Your task to perform on an android device: turn on notifications settings in the gmail app Image 0: 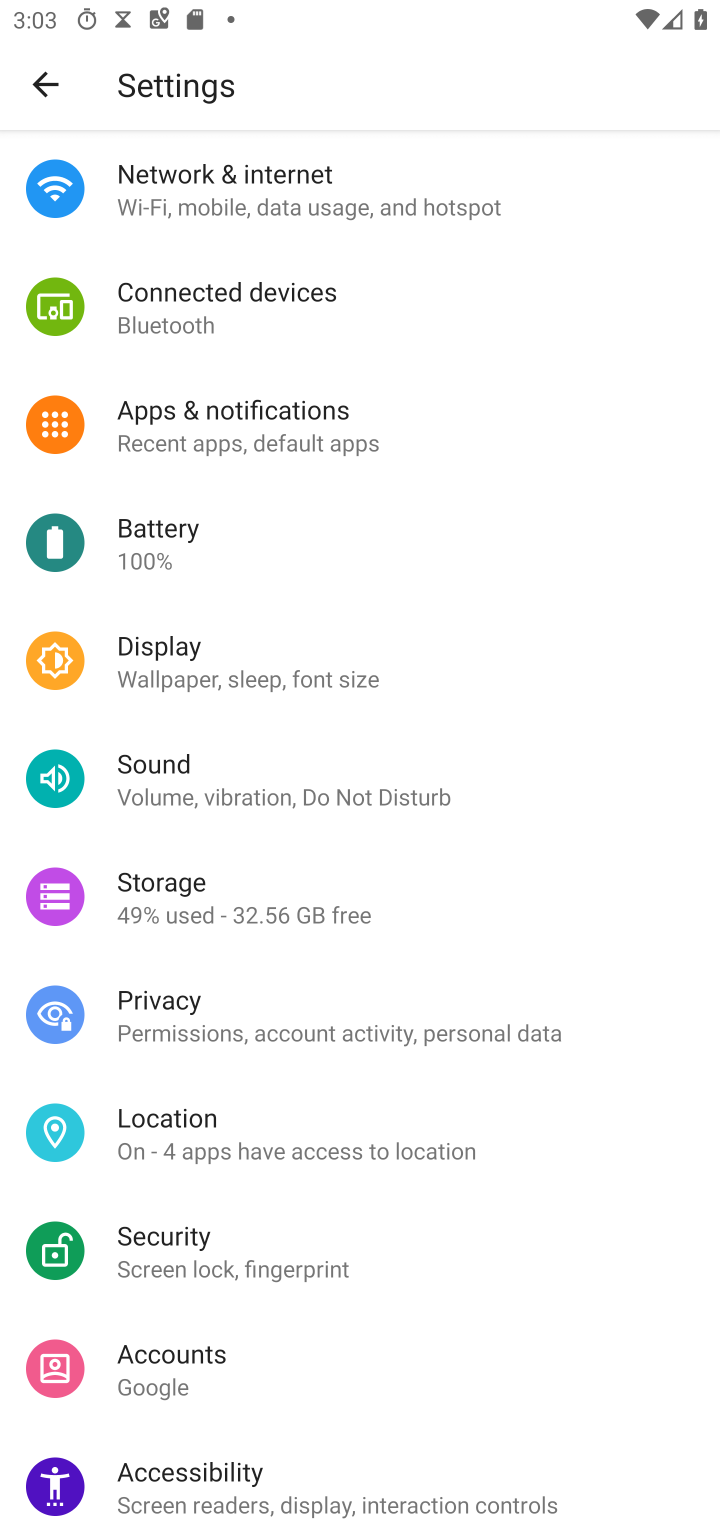
Step 0: press home button
Your task to perform on an android device: turn on notifications settings in the gmail app Image 1: 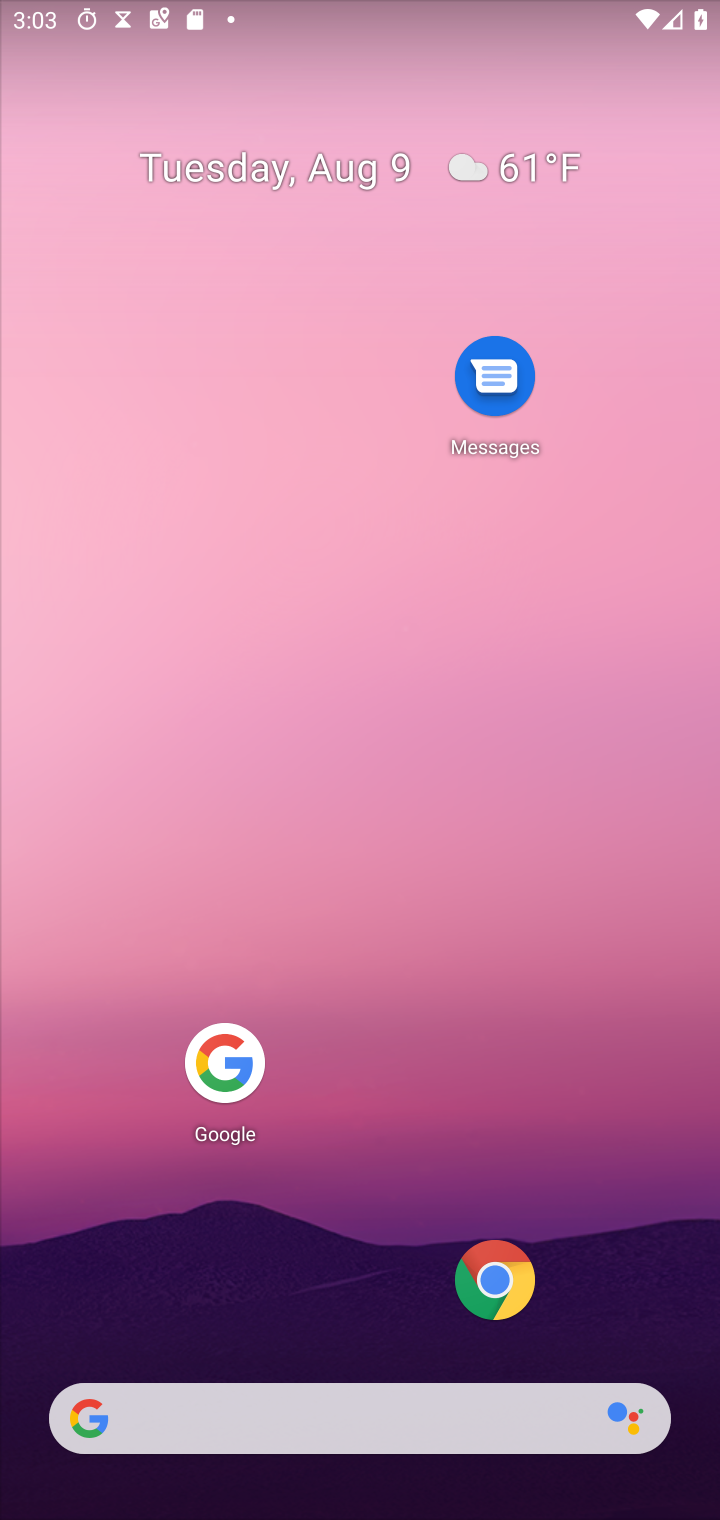
Step 1: drag from (306, 1282) to (452, 372)
Your task to perform on an android device: turn on notifications settings in the gmail app Image 2: 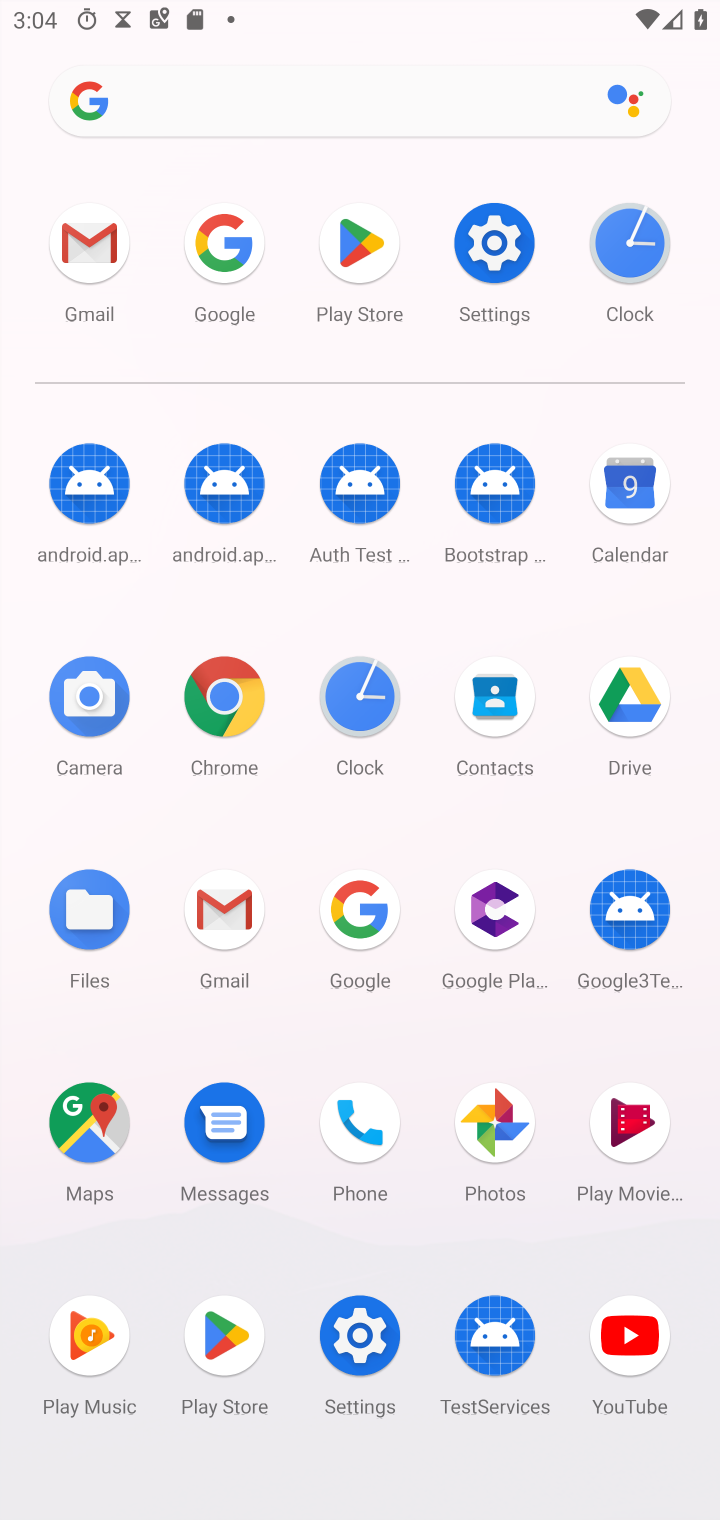
Step 2: click (91, 251)
Your task to perform on an android device: turn on notifications settings in the gmail app Image 3: 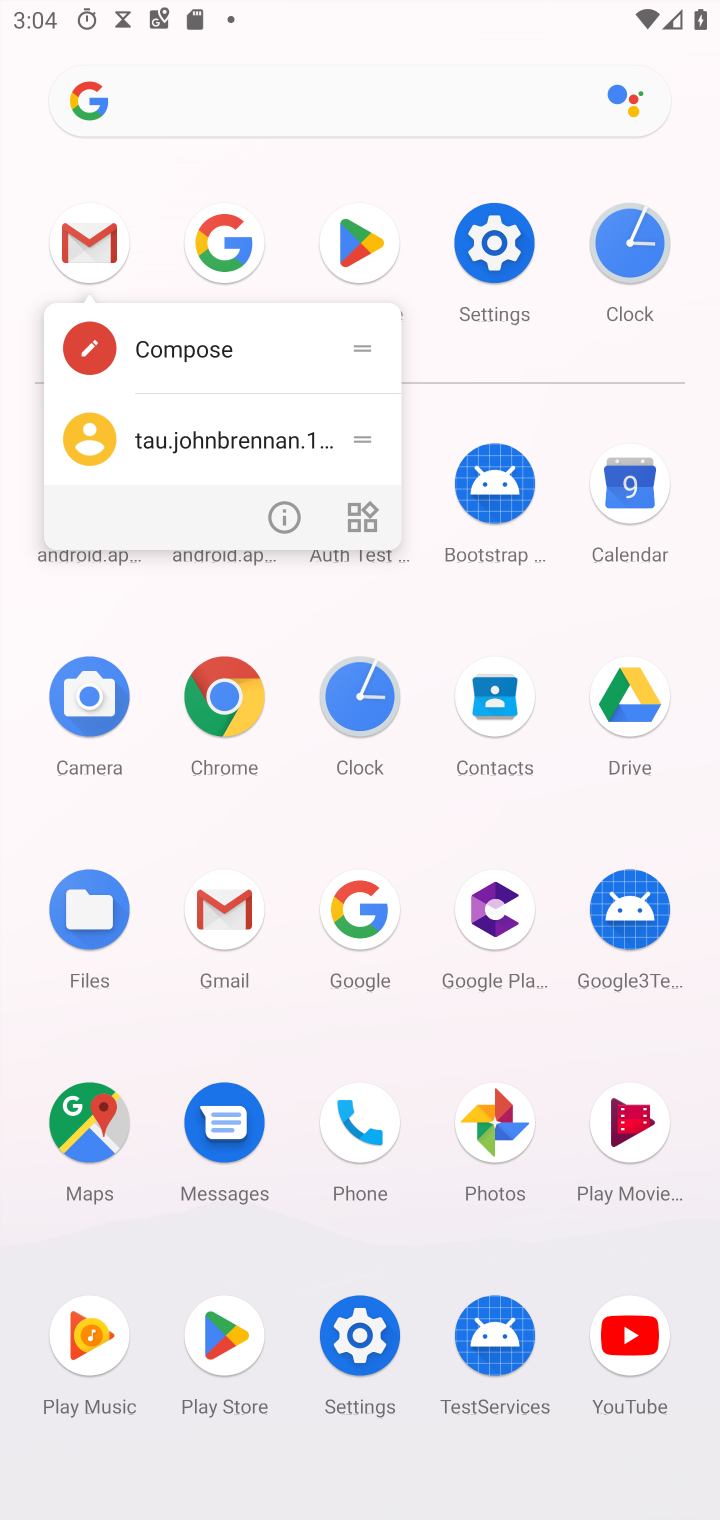
Step 3: click (85, 243)
Your task to perform on an android device: turn on notifications settings in the gmail app Image 4: 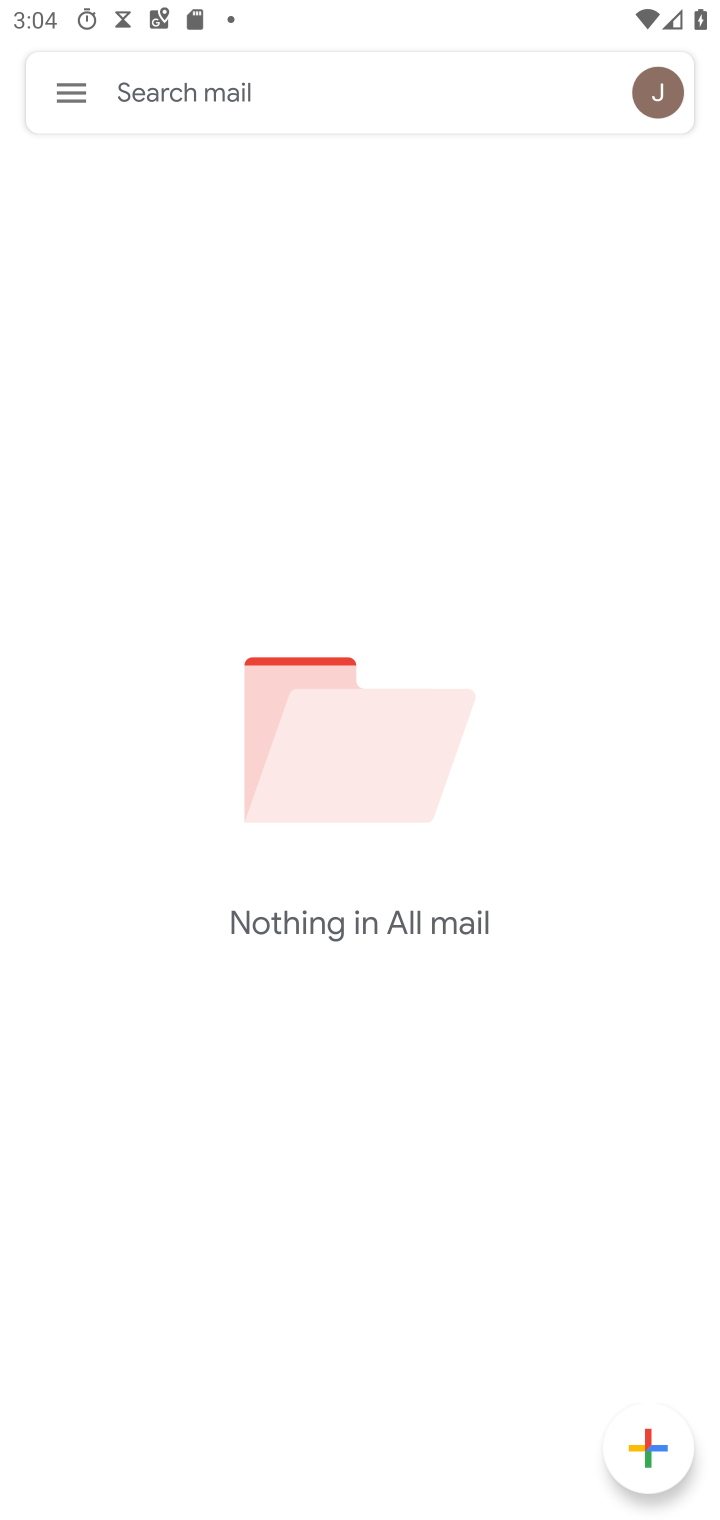
Step 4: click (65, 92)
Your task to perform on an android device: turn on notifications settings in the gmail app Image 5: 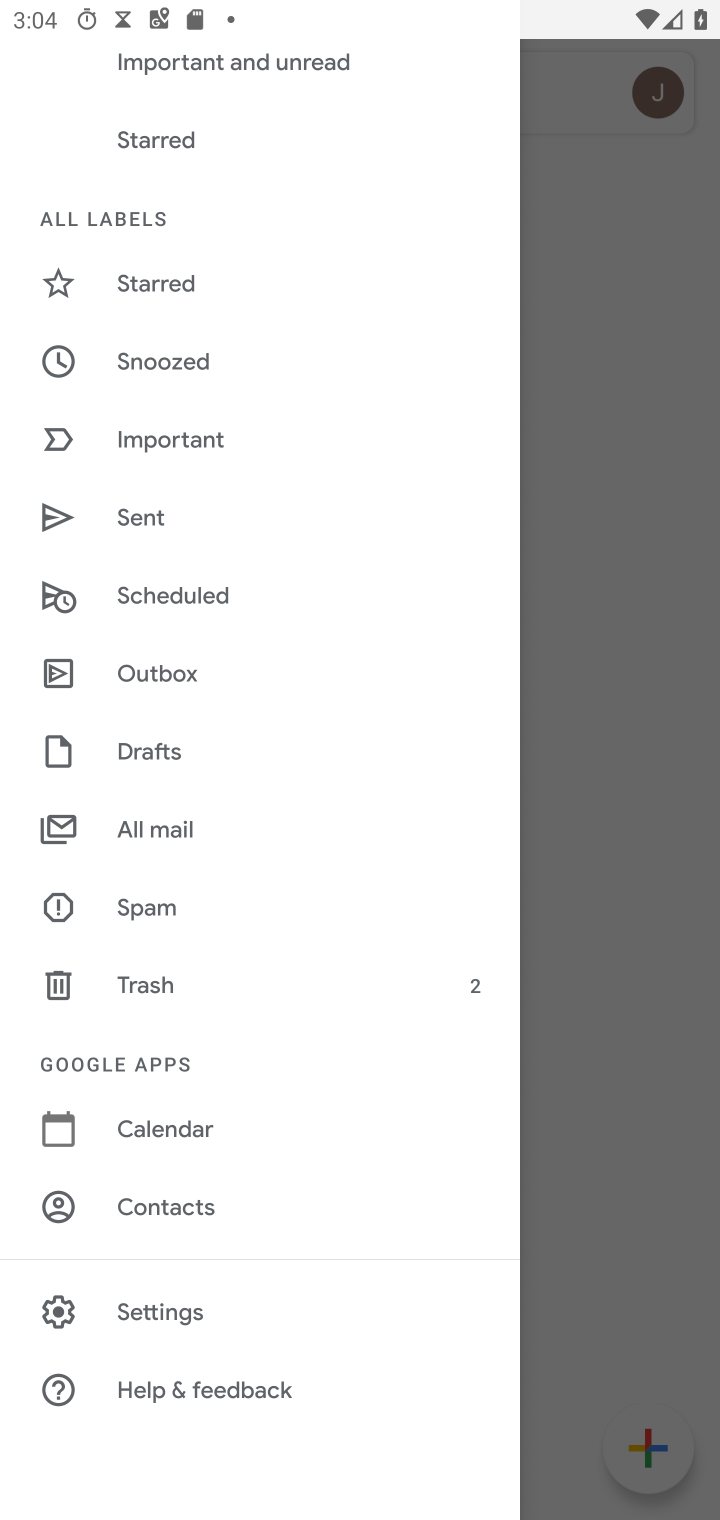
Step 5: click (149, 1311)
Your task to perform on an android device: turn on notifications settings in the gmail app Image 6: 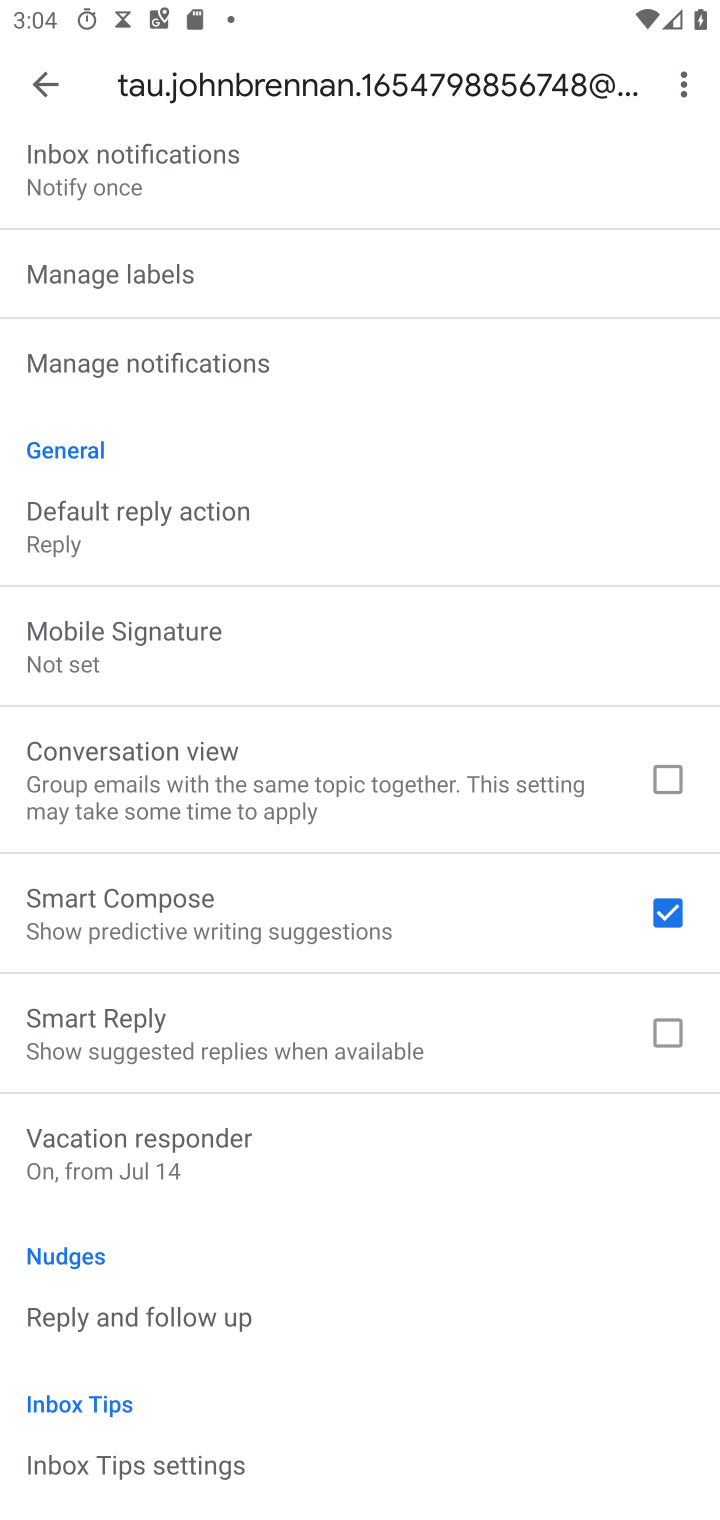
Step 6: drag from (408, 537) to (392, 1024)
Your task to perform on an android device: turn on notifications settings in the gmail app Image 7: 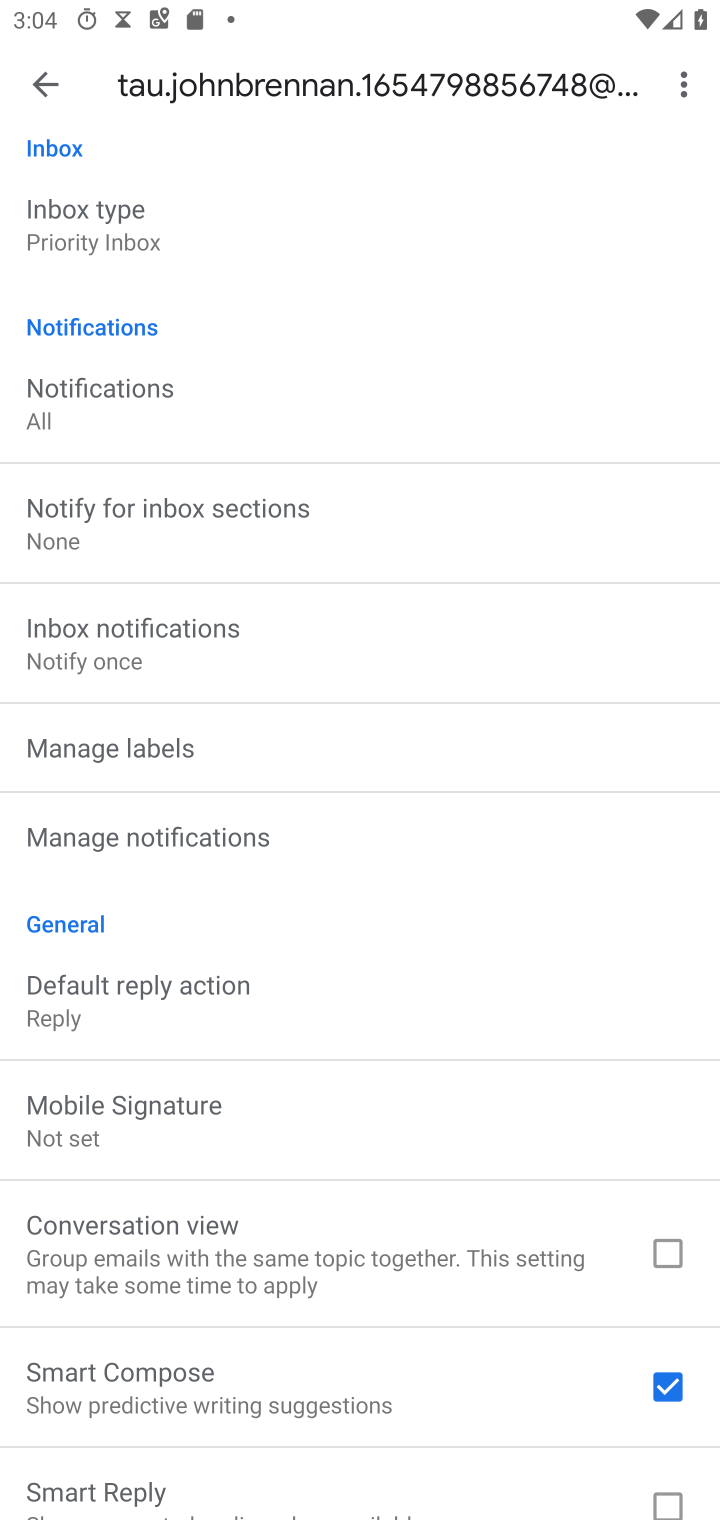
Step 7: click (110, 414)
Your task to perform on an android device: turn on notifications settings in the gmail app Image 8: 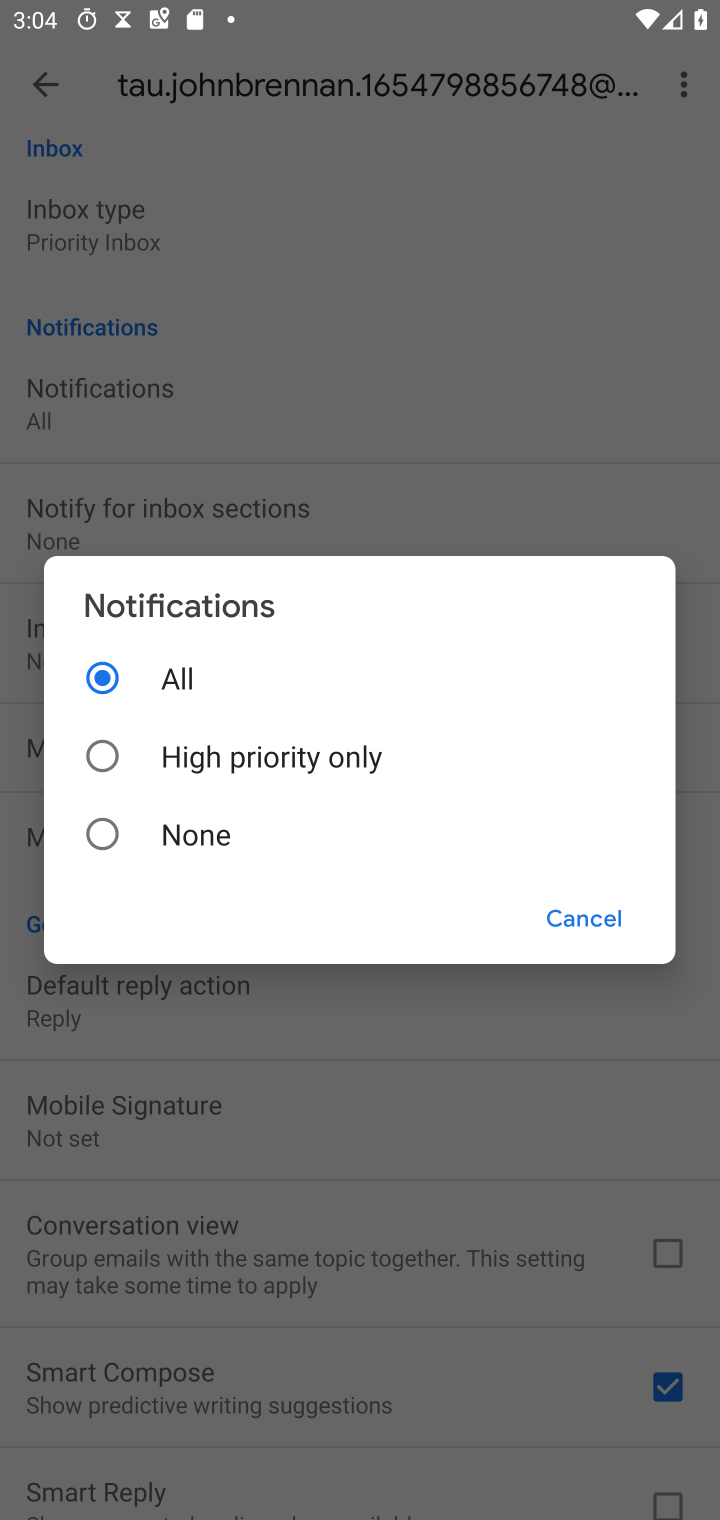
Step 8: task complete